Your task to perform on an android device: Do I have any events this weekend? Image 0: 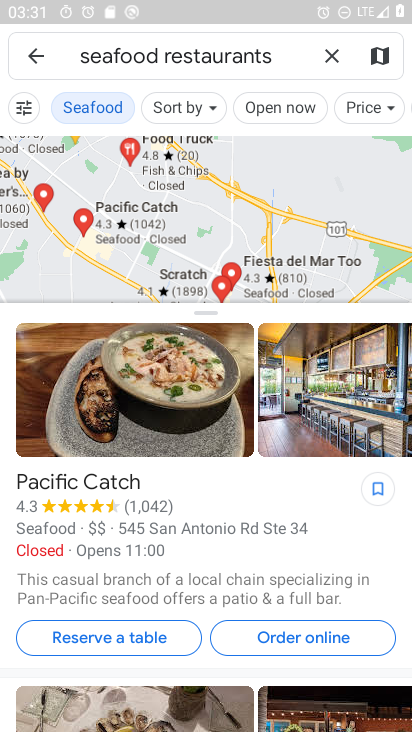
Step 0: press home button
Your task to perform on an android device: Do I have any events this weekend? Image 1: 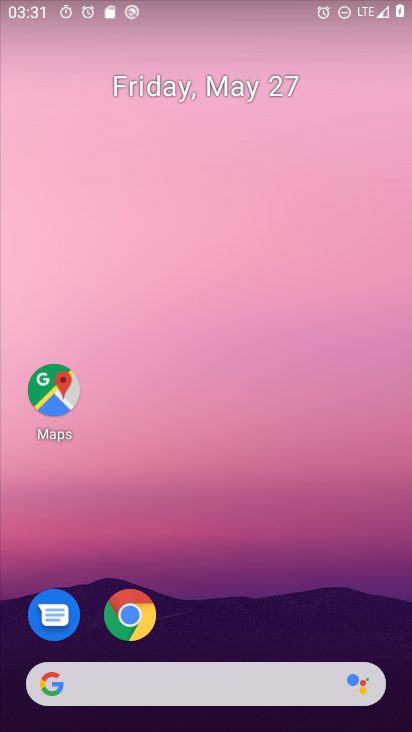
Step 1: drag from (356, 619) to (353, 319)
Your task to perform on an android device: Do I have any events this weekend? Image 2: 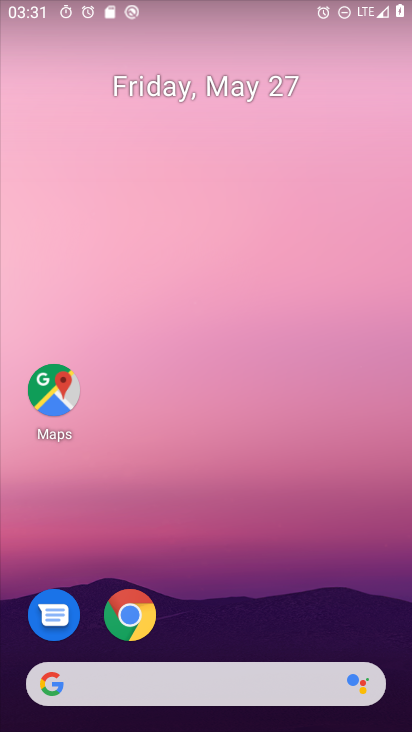
Step 2: drag from (357, 615) to (374, 353)
Your task to perform on an android device: Do I have any events this weekend? Image 3: 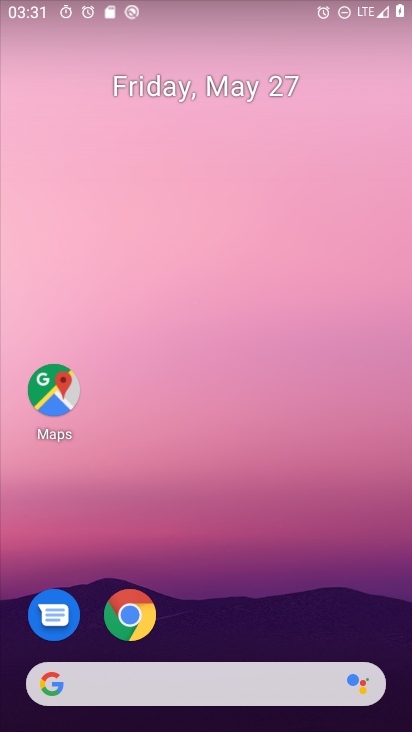
Step 3: drag from (360, 614) to (398, 344)
Your task to perform on an android device: Do I have any events this weekend? Image 4: 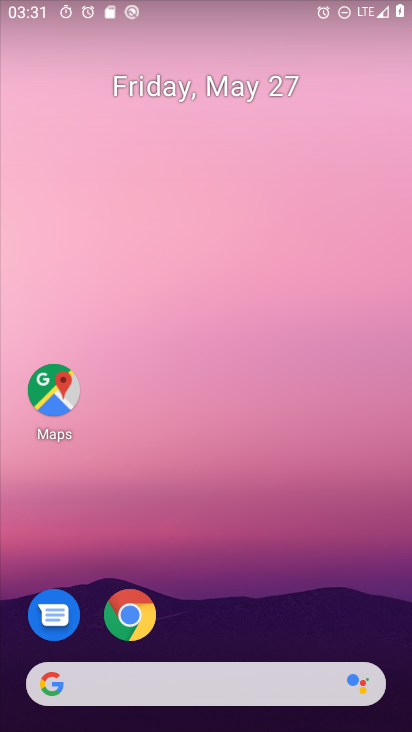
Step 4: drag from (391, 648) to (360, 167)
Your task to perform on an android device: Do I have any events this weekend? Image 5: 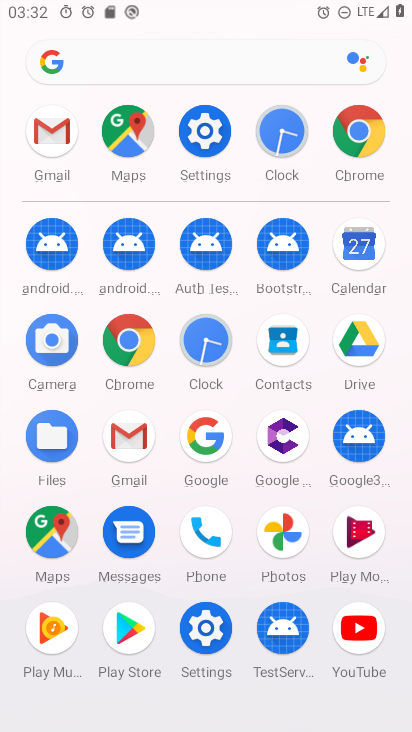
Step 5: click (363, 275)
Your task to perform on an android device: Do I have any events this weekend? Image 6: 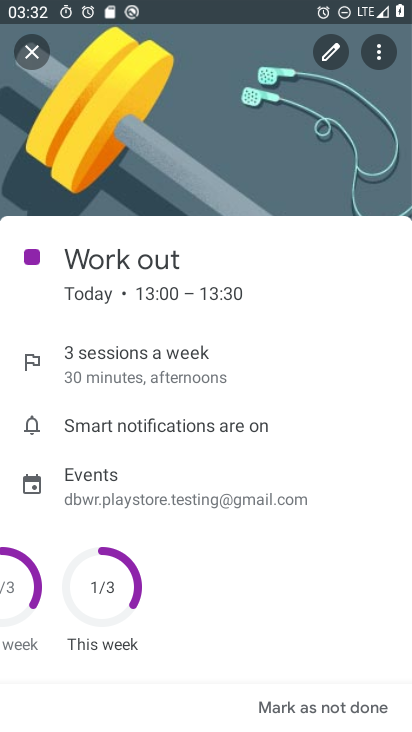
Step 6: press back button
Your task to perform on an android device: Do I have any events this weekend? Image 7: 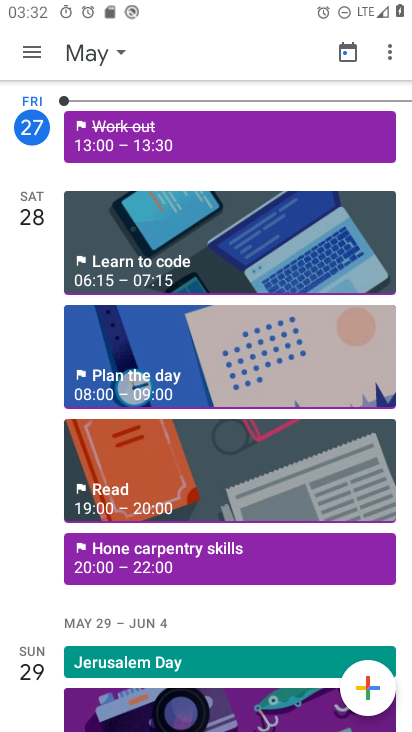
Step 7: click (238, 261)
Your task to perform on an android device: Do I have any events this weekend? Image 8: 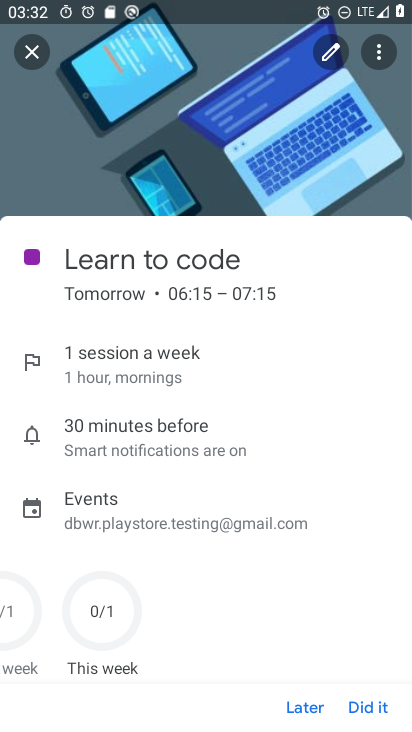
Step 8: task complete